Your task to perform on an android device: Open notification settings Image 0: 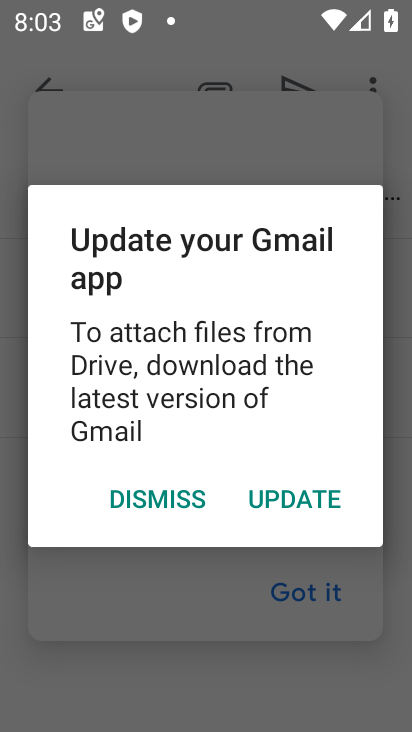
Step 0: press home button
Your task to perform on an android device: Open notification settings Image 1: 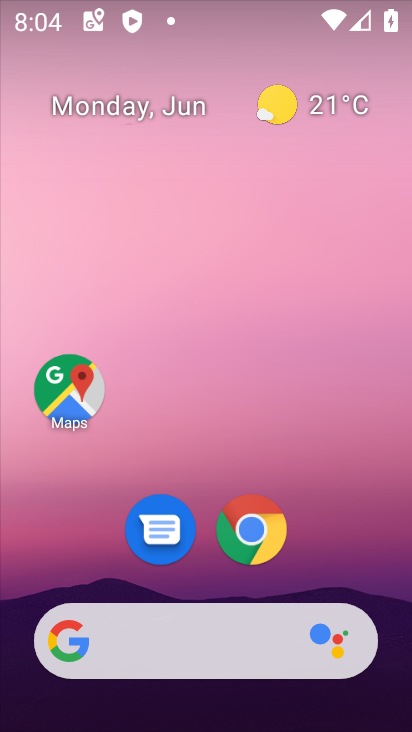
Step 1: drag from (86, 509) to (268, 181)
Your task to perform on an android device: Open notification settings Image 2: 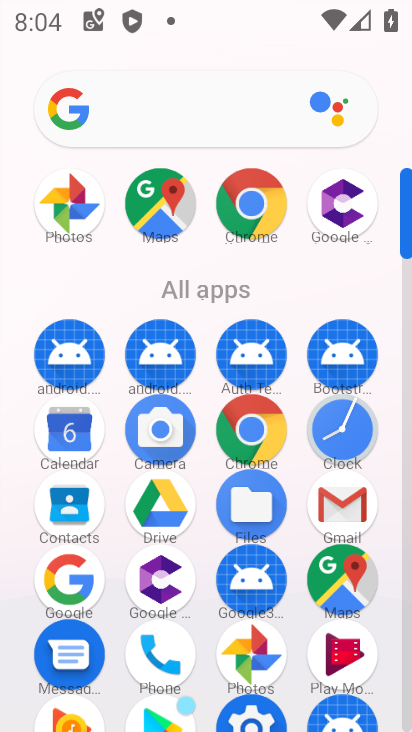
Step 2: click (291, 143)
Your task to perform on an android device: Open notification settings Image 3: 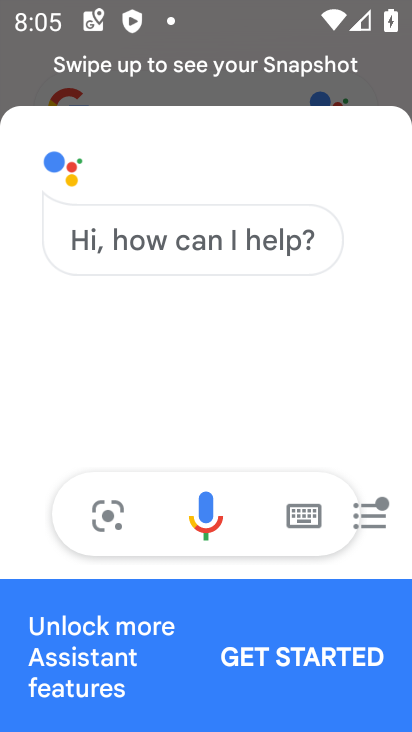
Step 3: press back button
Your task to perform on an android device: Open notification settings Image 4: 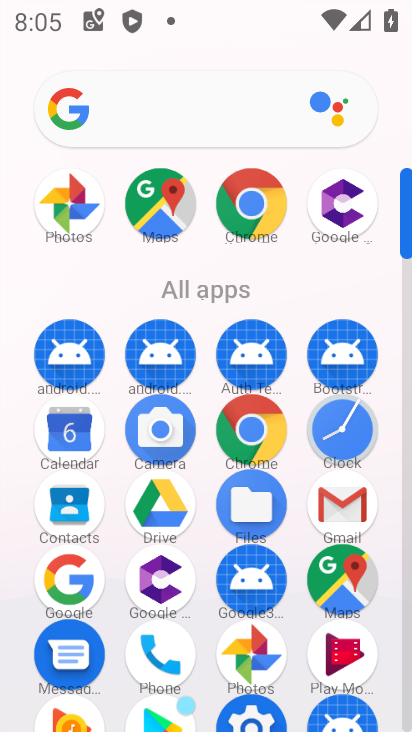
Step 4: click (237, 706)
Your task to perform on an android device: Open notification settings Image 5: 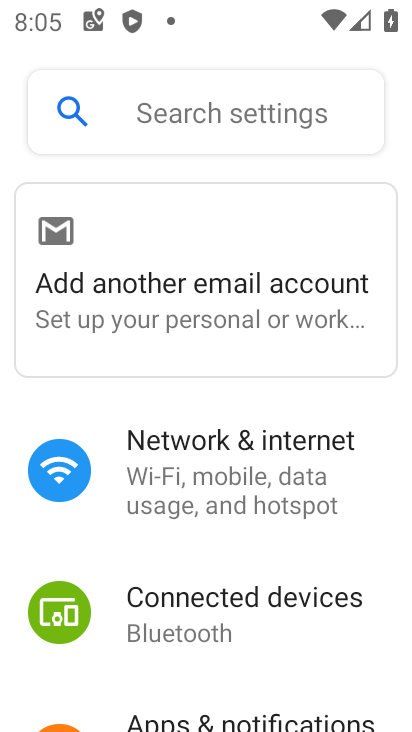
Step 5: click (202, 712)
Your task to perform on an android device: Open notification settings Image 6: 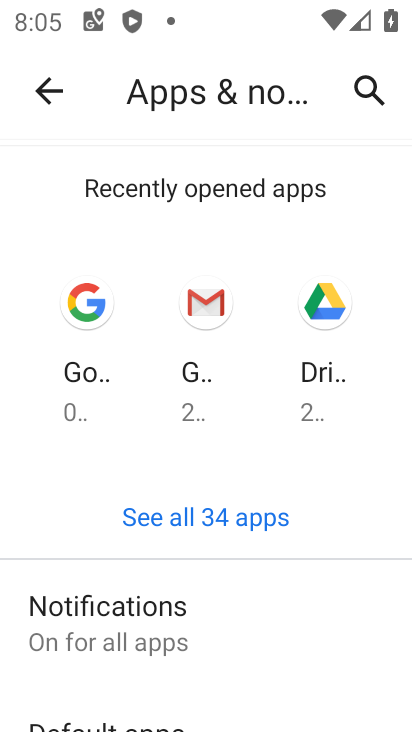
Step 6: click (89, 616)
Your task to perform on an android device: Open notification settings Image 7: 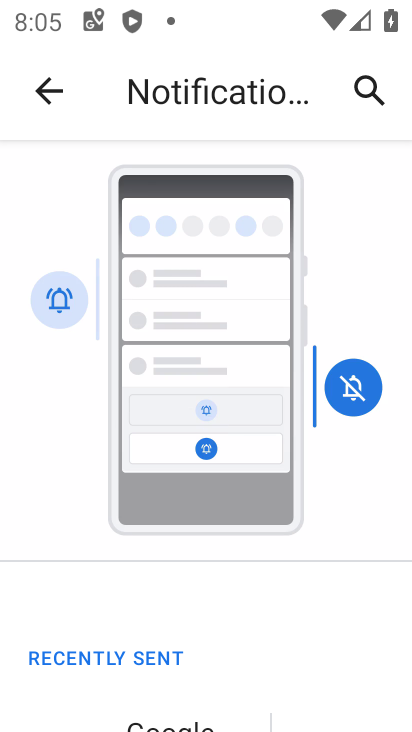
Step 7: task complete